Your task to perform on an android device: Play the last video I watched on Youtube Image 0: 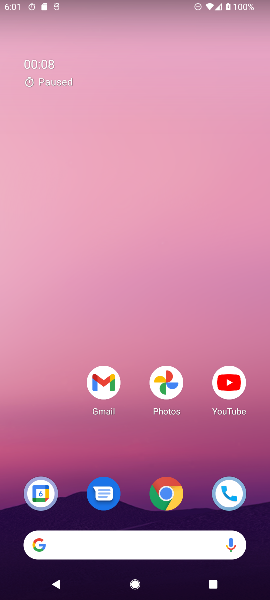
Step 0: drag from (170, 553) to (149, 225)
Your task to perform on an android device: Play the last video I watched on Youtube Image 1: 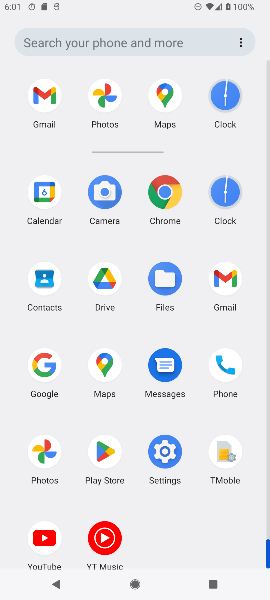
Step 1: click (46, 541)
Your task to perform on an android device: Play the last video I watched on Youtube Image 2: 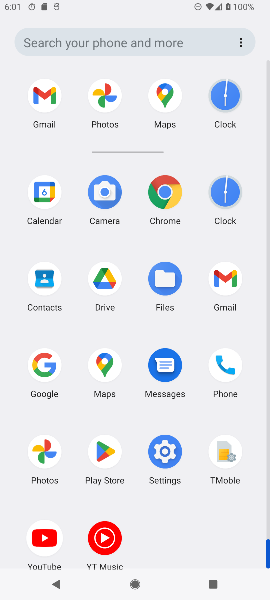
Step 2: click (46, 541)
Your task to perform on an android device: Play the last video I watched on Youtube Image 3: 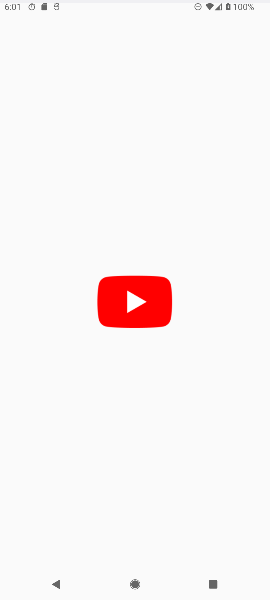
Step 3: click (48, 540)
Your task to perform on an android device: Play the last video I watched on Youtube Image 4: 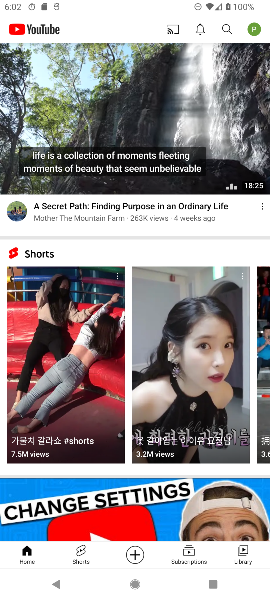
Step 4: task complete